Your task to perform on an android device: Turn off the flashlight Image 0: 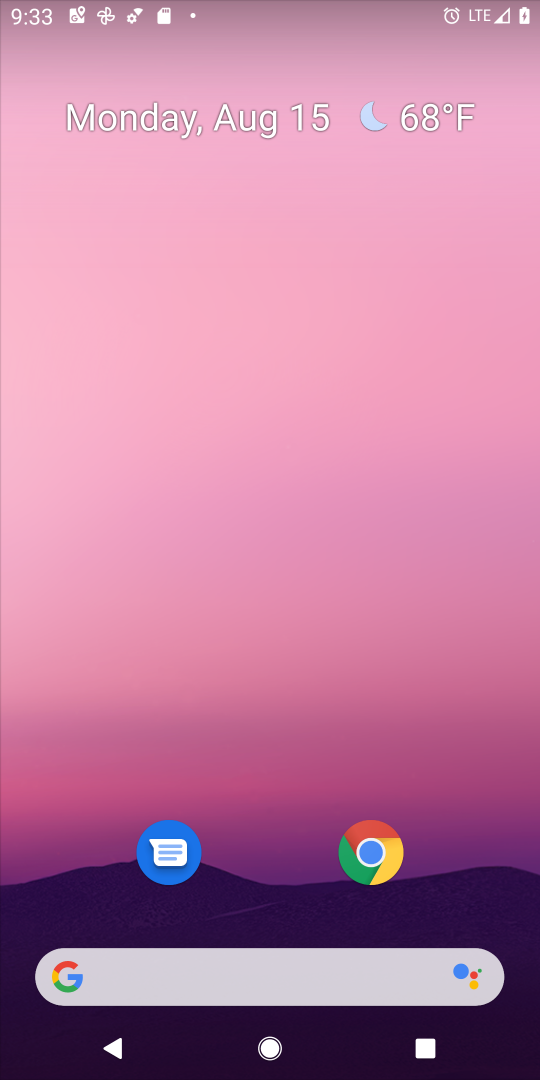
Step 0: drag from (249, 974) to (202, 238)
Your task to perform on an android device: Turn off the flashlight Image 1: 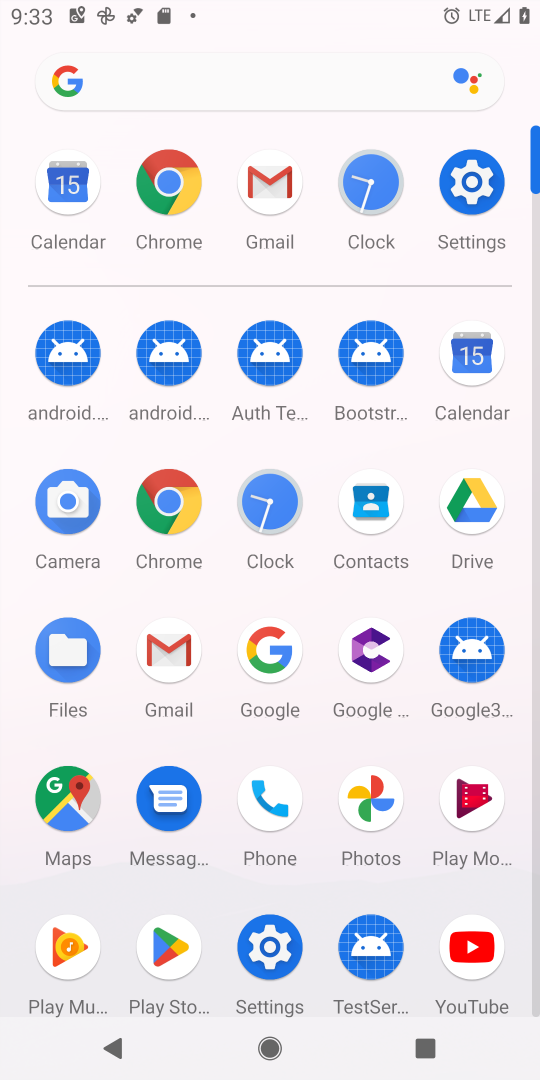
Step 1: click (469, 184)
Your task to perform on an android device: Turn off the flashlight Image 2: 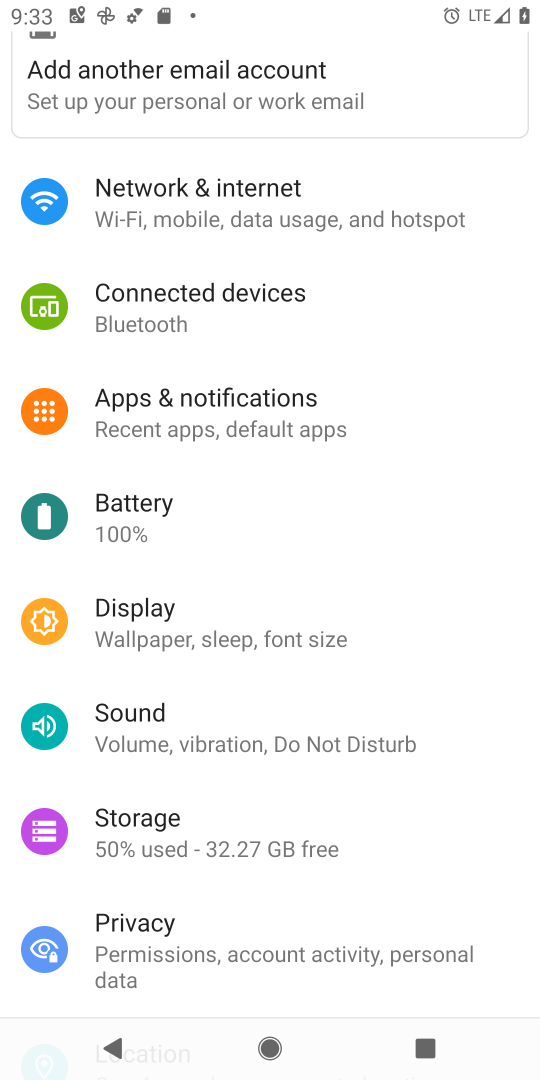
Step 2: drag from (204, 548) to (297, 354)
Your task to perform on an android device: Turn off the flashlight Image 3: 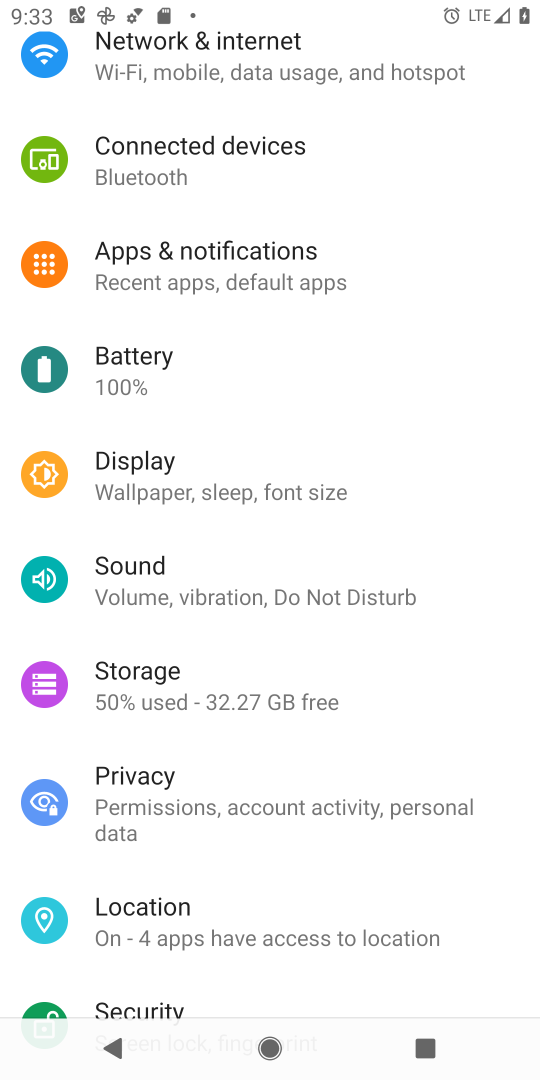
Step 3: drag from (174, 647) to (287, 491)
Your task to perform on an android device: Turn off the flashlight Image 4: 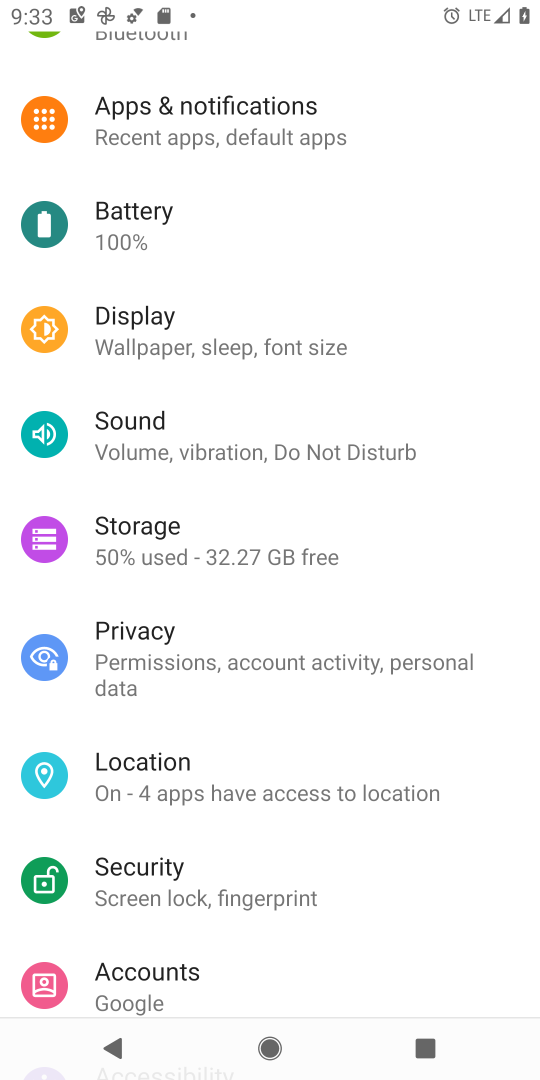
Step 4: drag from (177, 720) to (265, 569)
Your task to perform on an android device: Turn off the flashlight Image 5: 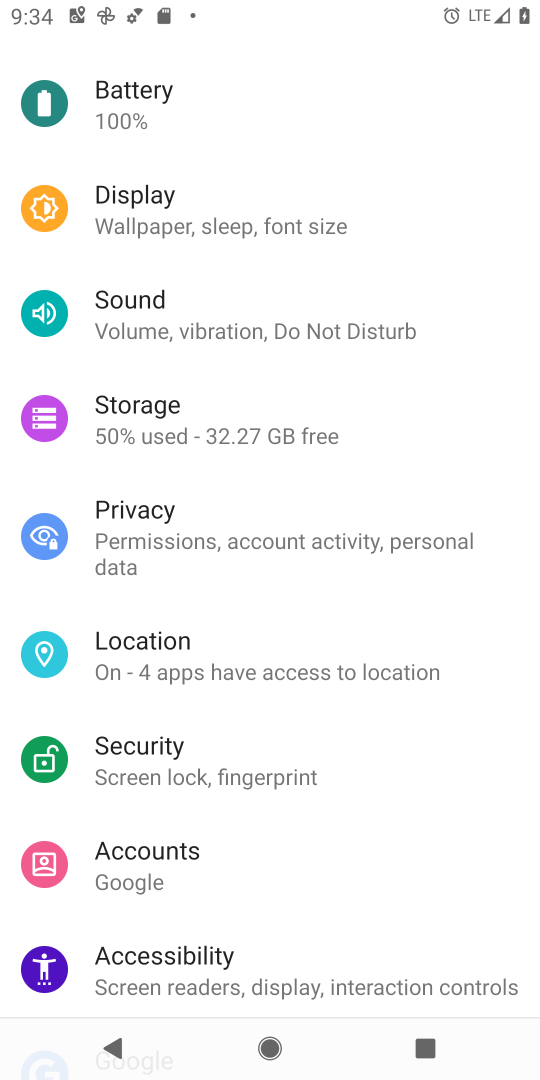
Step 5: drag from (132, 833) to (248, 677)
Your task to perform on an android device: Turn off the flashlight Image 6: 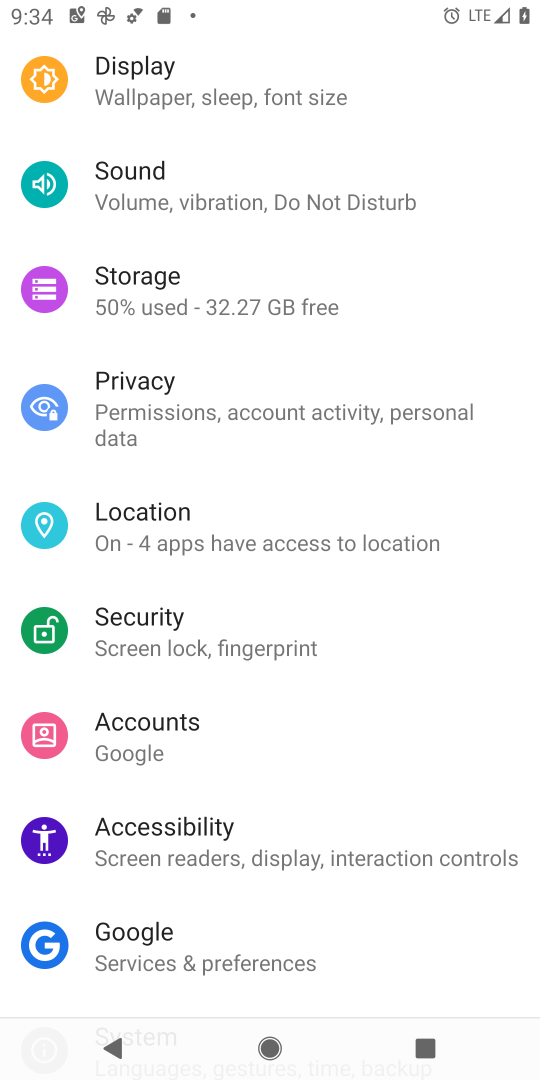
Step 6: click (261, 90)
Your task to perform on an android device: Turn off the flashlight Image 7: 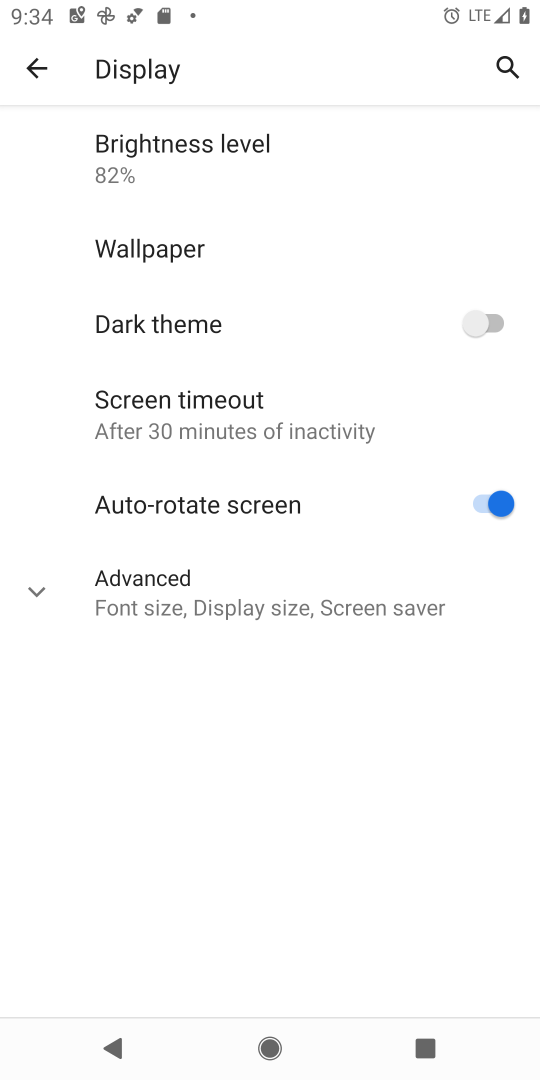
Step 7: click (247, 443)
Your task to perform on an android device: Turn off the flashlight Image 8: 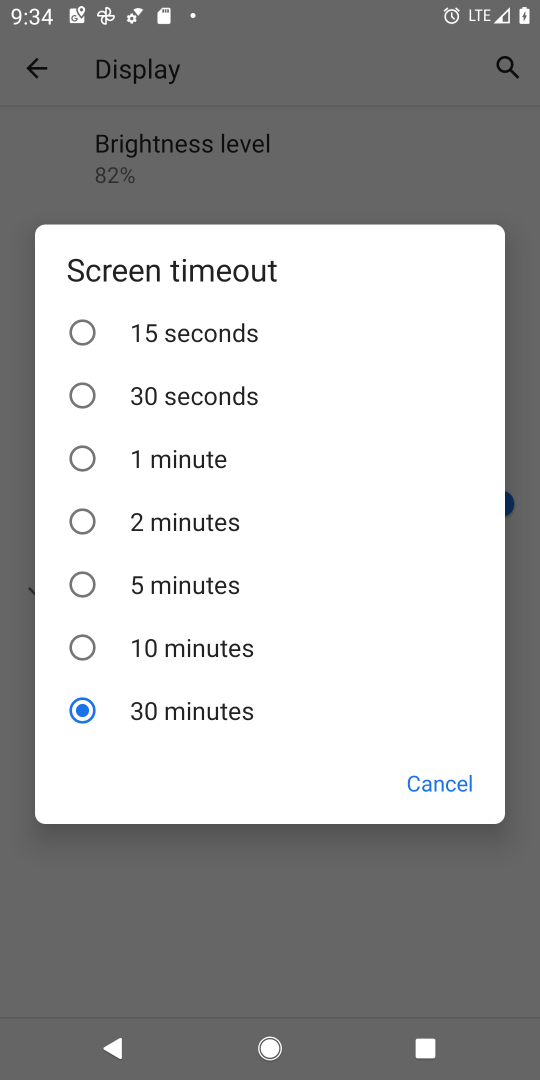
Step 8: click (436, 792)
Your task to perform on an android device: Turn off the flashlight Image 9: 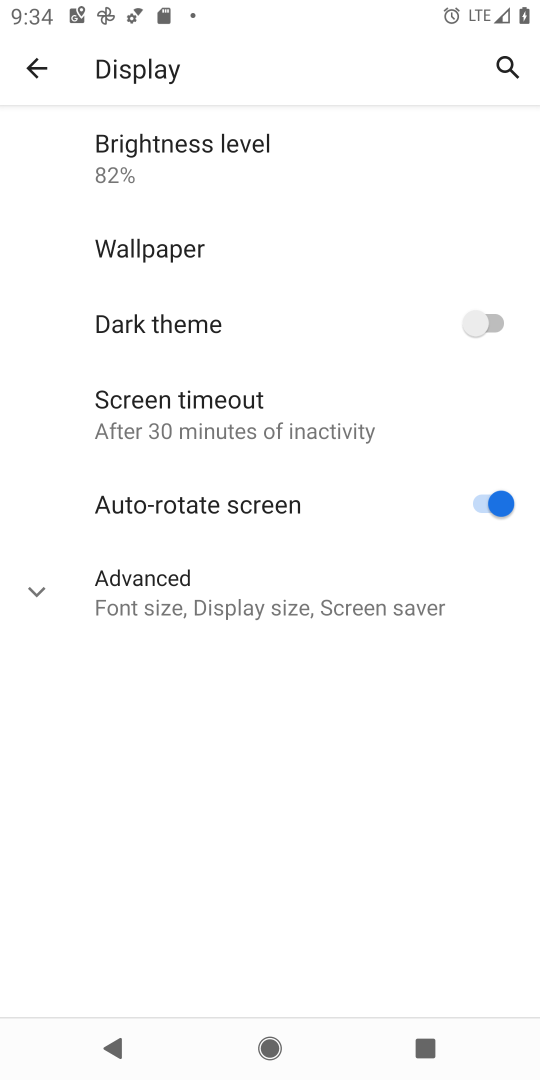
Step 9: task complete